Your task to perform on an android device: turn on data saver in the chrome app Image 0: 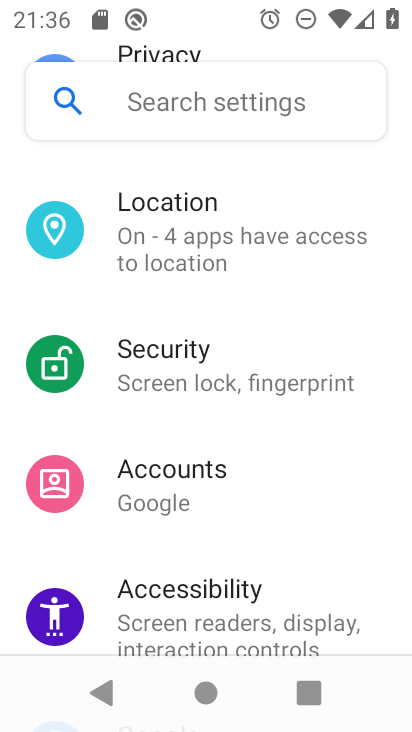
Step 0: press home button
Your task to perform on an android device: turn on data saver in the chrome app Image 1: 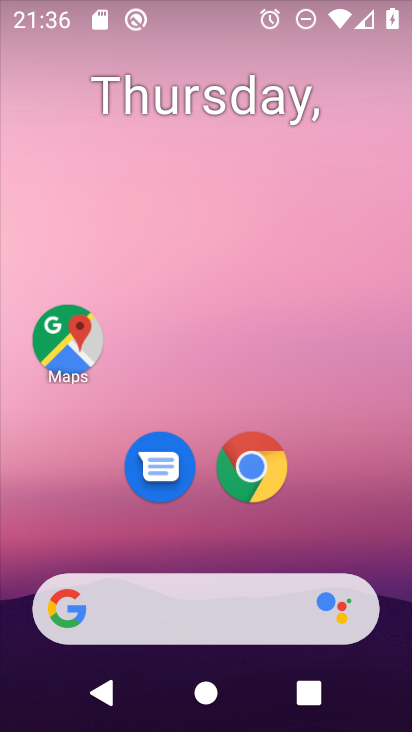
Step 1: click (233, 459)
Your task to perform on an android device: turn on data saver in the chrome app Image 2: 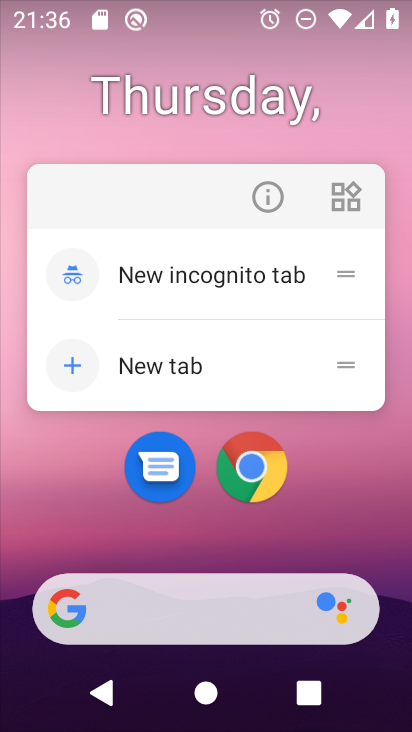
Step 2: click (254, 459)
Your task to perform on an android device: turn on data saver in the chrome app Image 3: 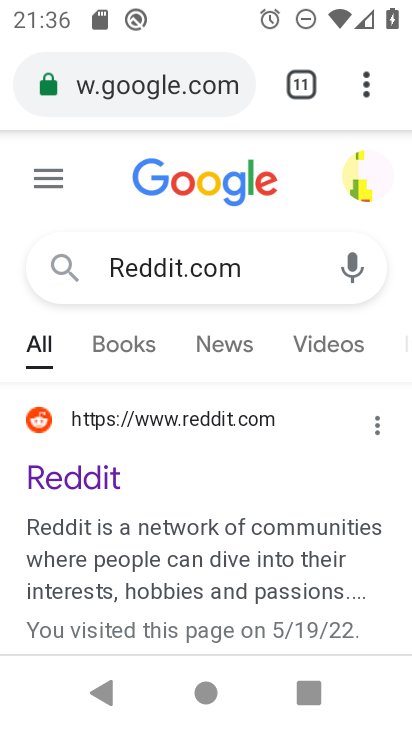
Step 3: click (363, 80)
Your task to perform on an android device: turn on data saver in the chrome app Image 4: 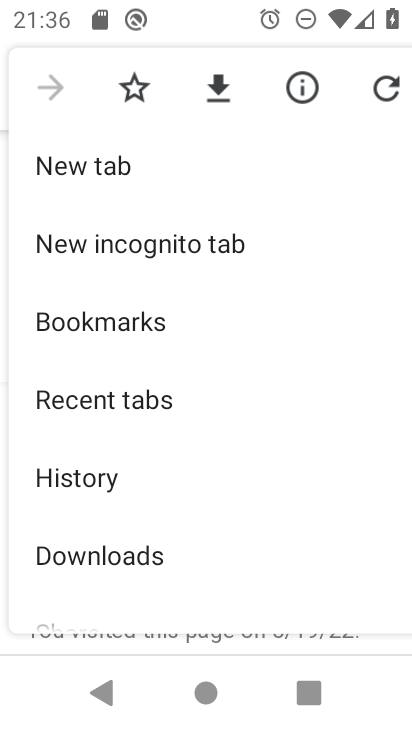
Step 4: drag from (100, 581) to (193, 191)
Your task to perform on an android device: turn on data saver in the chrome app Image 5: 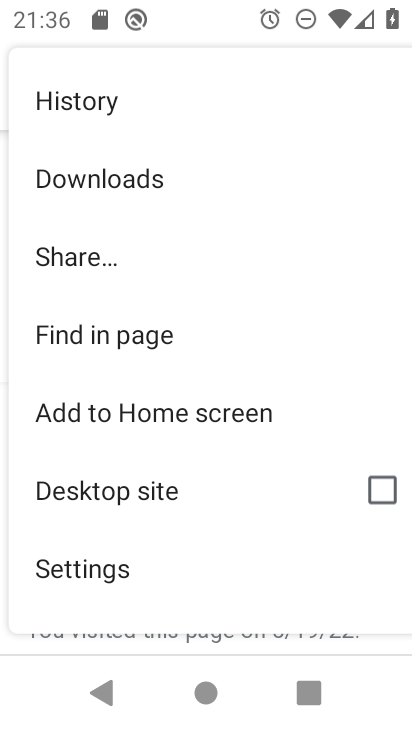
Step 5: click (125, 573)
Your task to perform on an android device: turn on data saver in the chrome app Image 6: 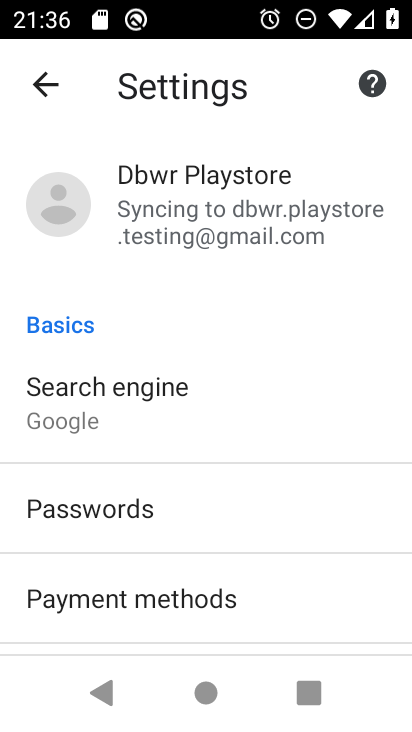
Step 6: drag from (226, 568) to (289, 169)
Your task to perform on an android device: turn on data saver in the chrome app Image 7: 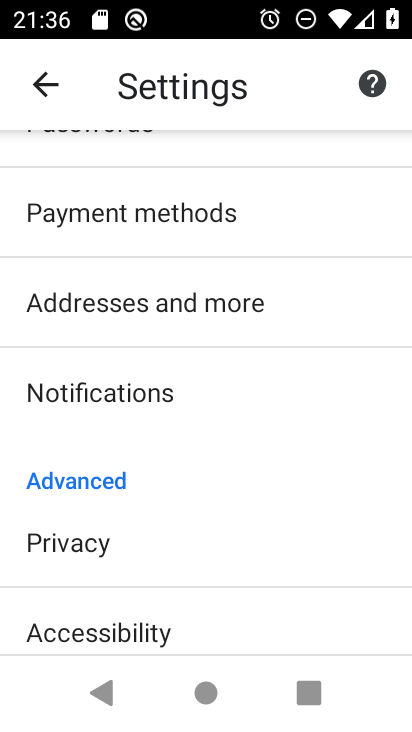
Step 7: drag from (140, 579) to (243, 216)
Your task to perform on an android device: turn on data saver in the chrome app Image 8: 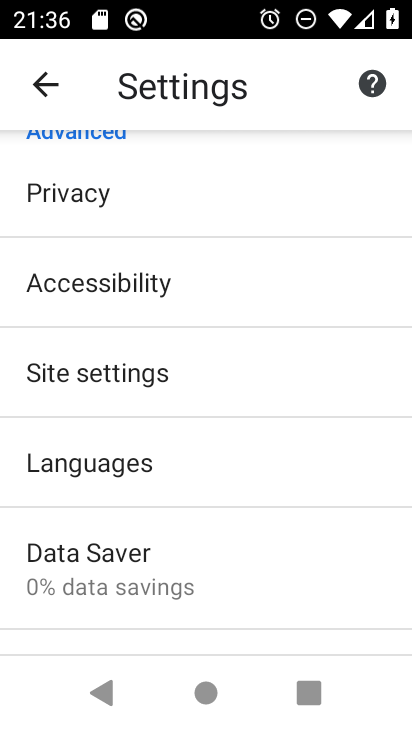
Step 8: click (157, 562)
Your task to perform on an android device: turn on data saver in the chrome app Image 9: 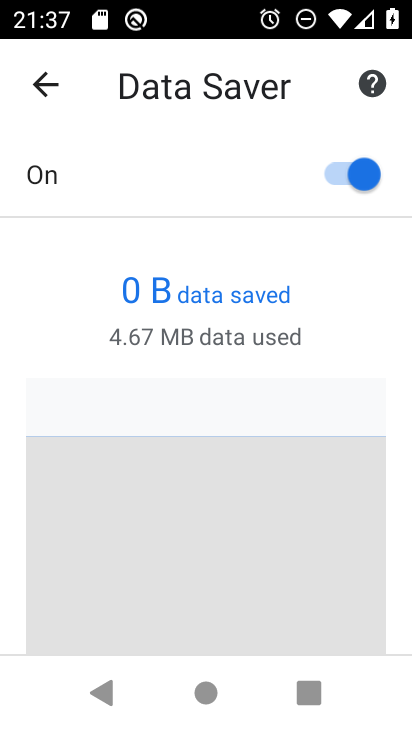
Step 9: task complete